Your task to perform on an android device: Go to Amazon Image 0: 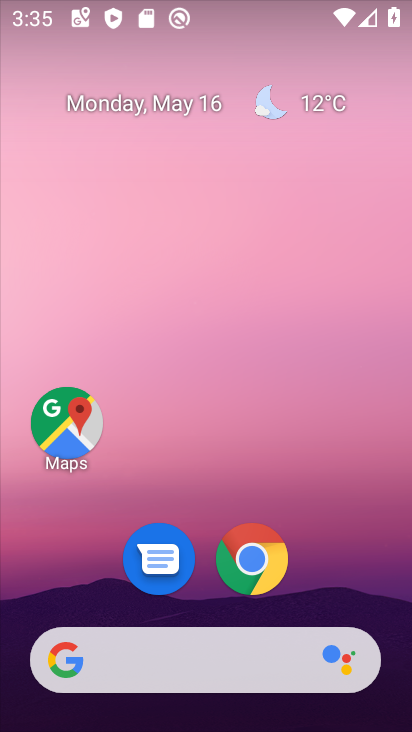
Step 0: click (284, 557)
Your task to perform on an android device: Go to Amazon Image 1: 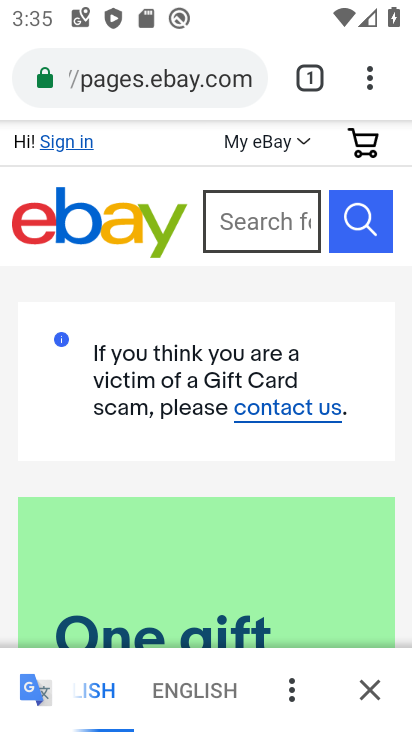
Step 1: click (379, 75)
Your task to perform on an android device: Go to Amazon Image 2: 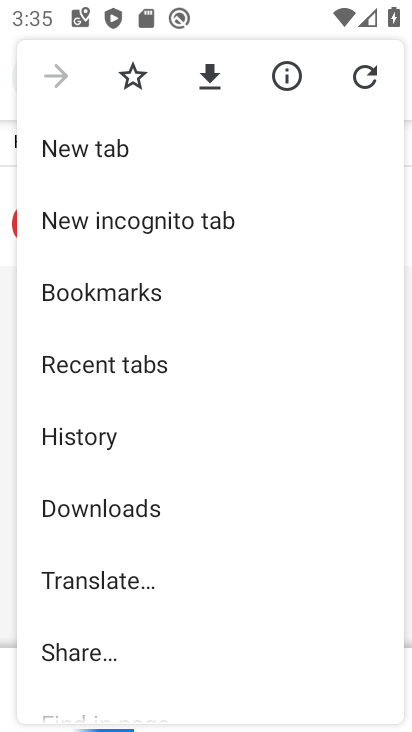
Step 2: click (6, 82)
Your task to perform on an android device: Go to Amazon Image 3: 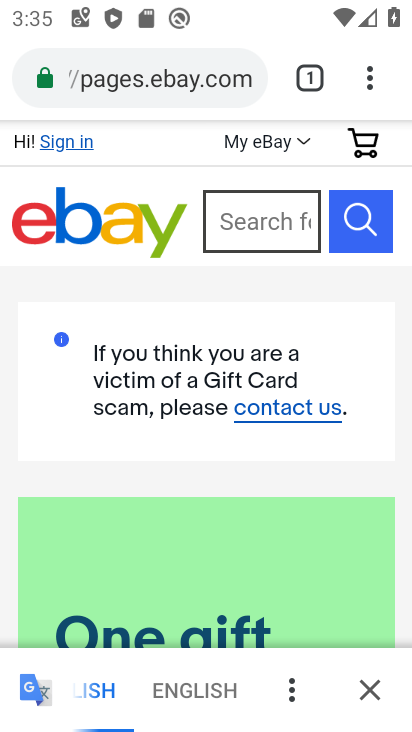
Step 3: click (321, 84)
Your task to perform on an android device: Go to Amazon Image 4: 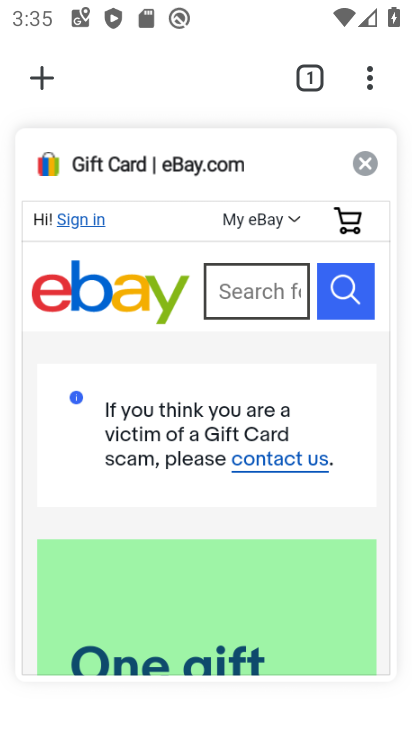
Step 4: click (35, 71)
Your task to perform on an android device: Go to Amazon Image 5: 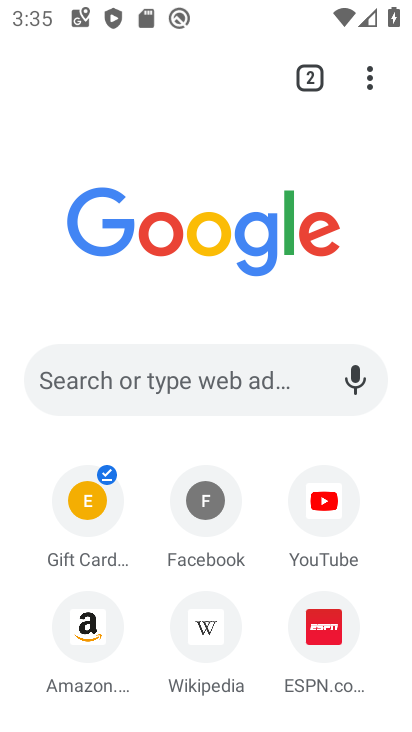
Step 5: click (116, 646)
Your task to perform on an android device: Go to Amazon Image 6: 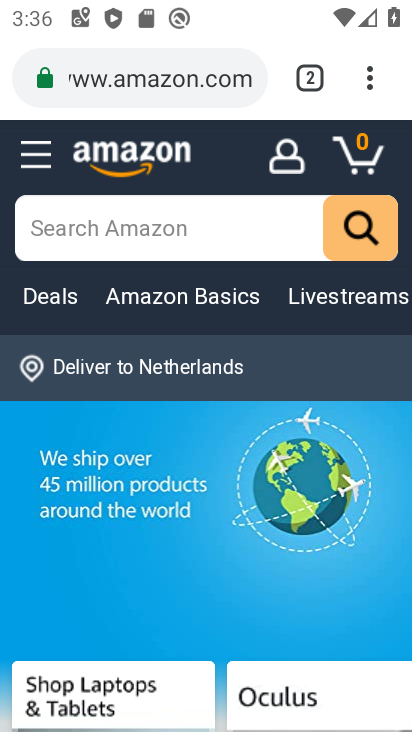
Step 6: task complete